Your task to perform on an android device: Open calendar and show me the third week of next month Image 0: 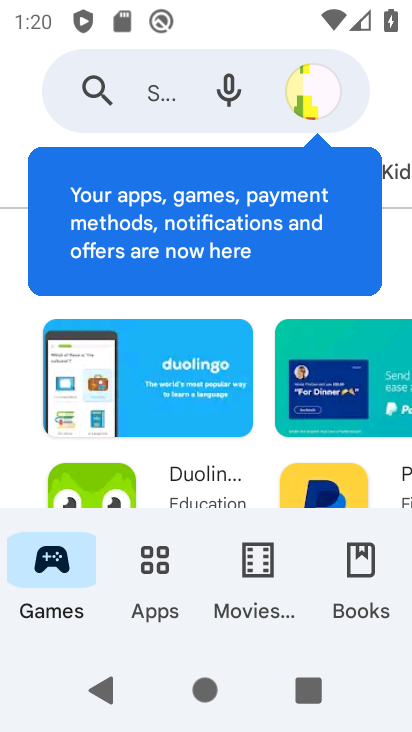
Step 0: press home button
Your task to perform on an android device: Open calendar and show me the third week of next month Image 1: 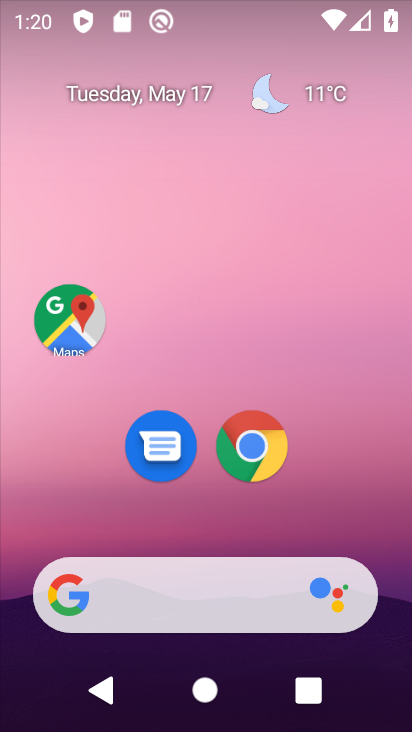
Step 1: drag from (210, 381) to (202, 38)
Your task to perform on an android device: Open calendar and show me the third week of next month Image 2: 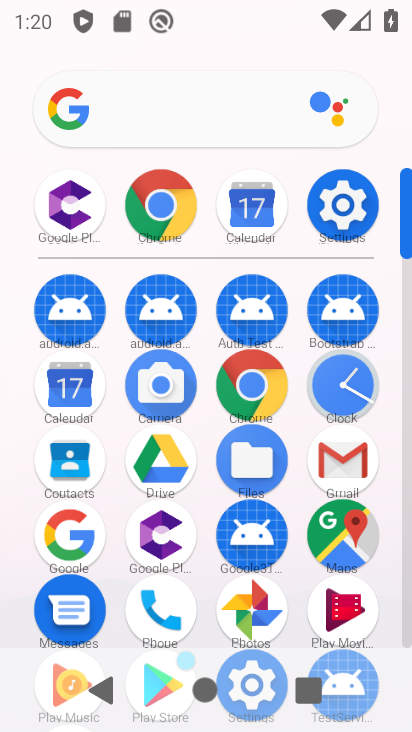
Step 2: click (67, 411)
Your task to perform on an android device: Open calendar and show me the third week of next month Image 3: 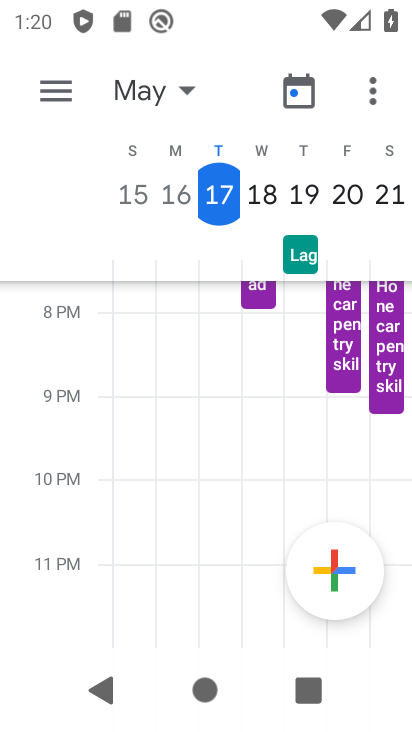
Step 3: click (53, 97)
Your task to perform on an android device: Open calendar and show me the third week of next month Image 4: 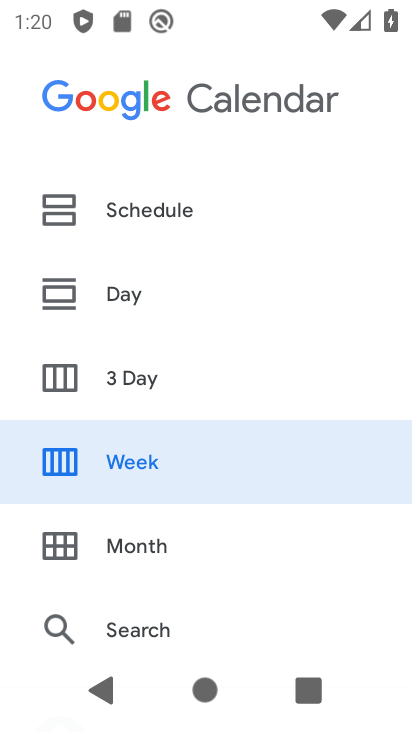
Step 4: click (257, 473)
Your task to perform on an android device: Open calendar and show me the third week of next month Image 5: 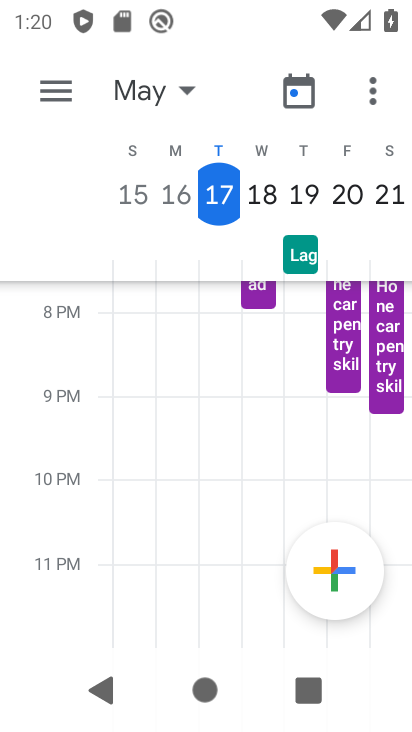
Step 5: click (155, 82)
Your task to perform on an android device: Open calendar and show me the third week of next month Image 6: 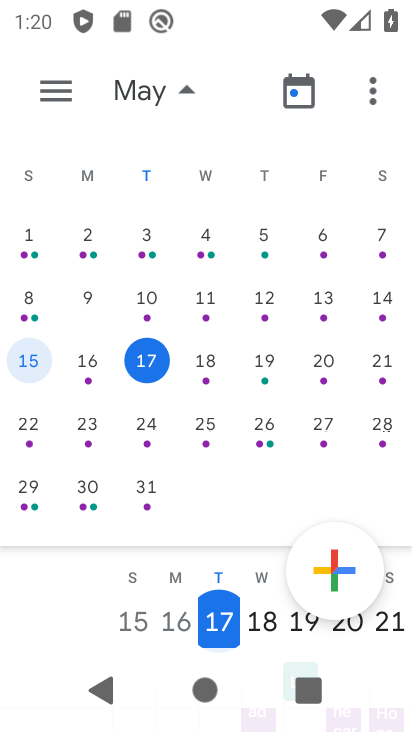
Step 6: drag from (338, 331) to (4, 312)
Your task to perform on an android device: Open calendar and show me the third week of next month Image 7: 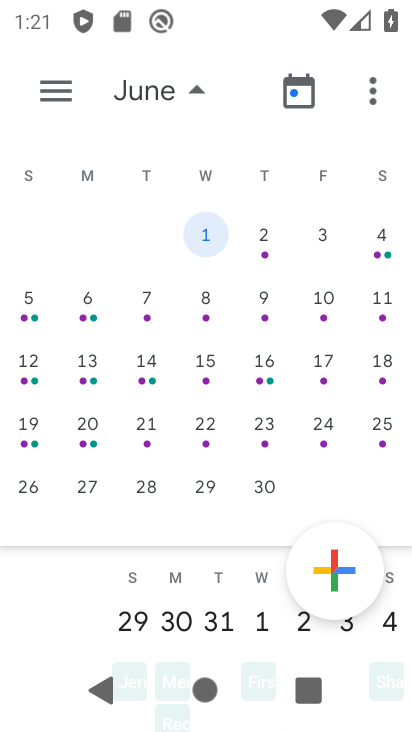
Step 7: click (83, 425)
Your task to perform on an android device: Open calendar and show me the third week of next month Image 8: 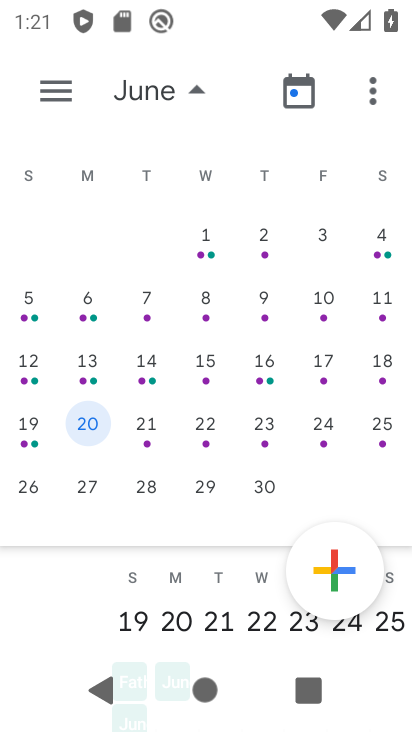
Step 8: task complete